Your task to perform on an android device: Check the weather Image 0: 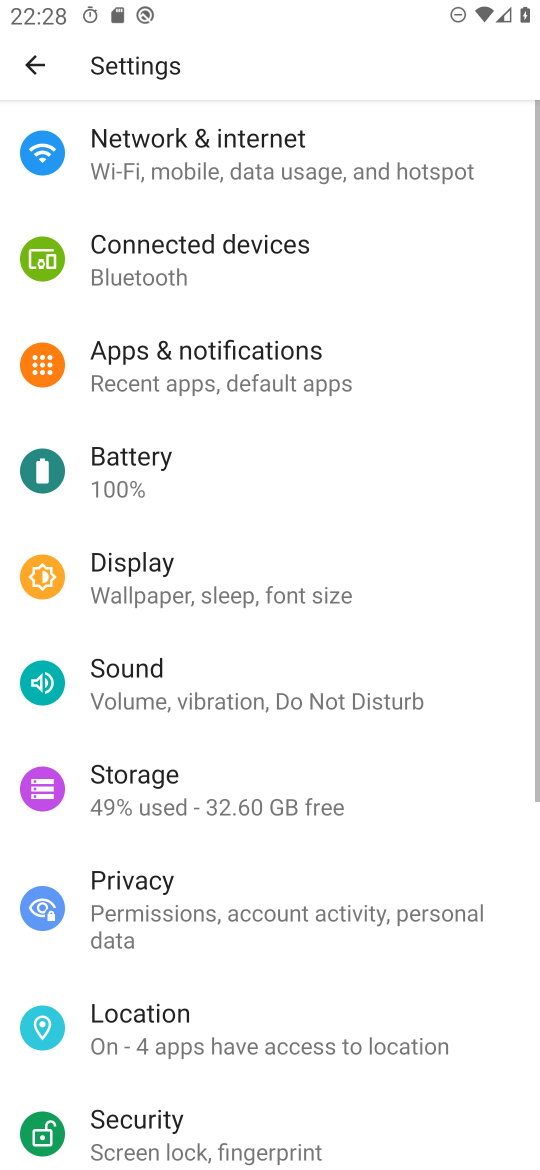
Step 0: press back button
Your task to perform on an android device: Check the weather Image 1: 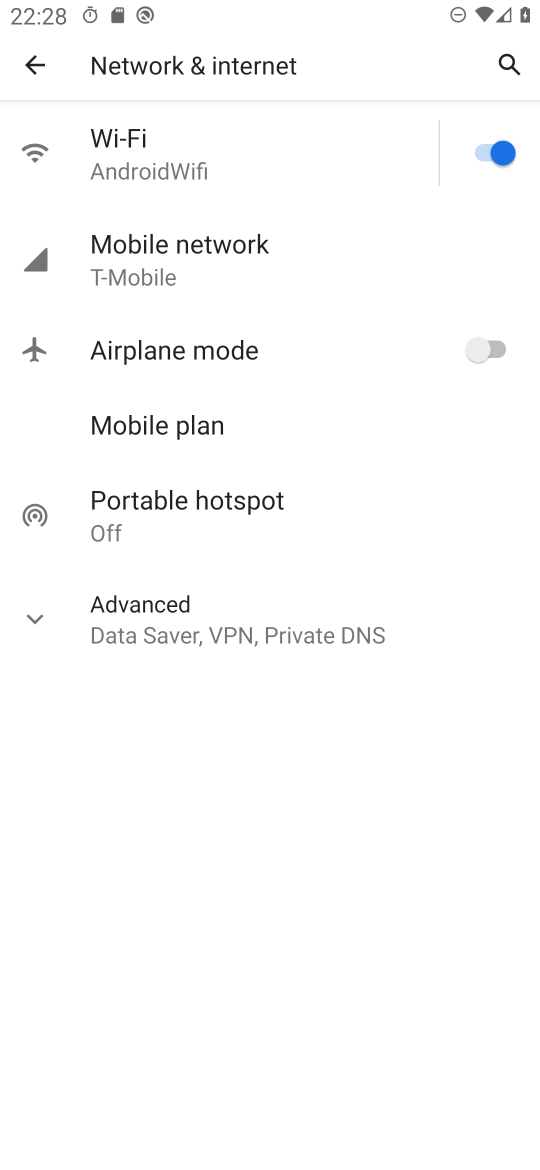
Step 1: press home button
Your task to perform on an android device: Check the weather Image 2: 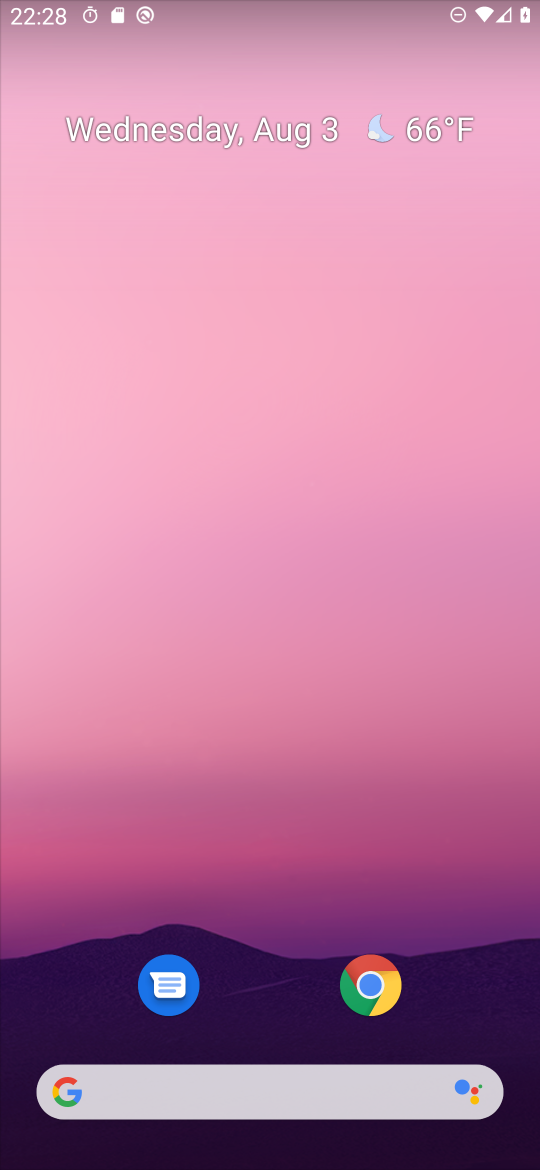
Step 2: drag from (262, 999) to (237, 324)
Your task to perform on an android device: Check the weather Image 3: 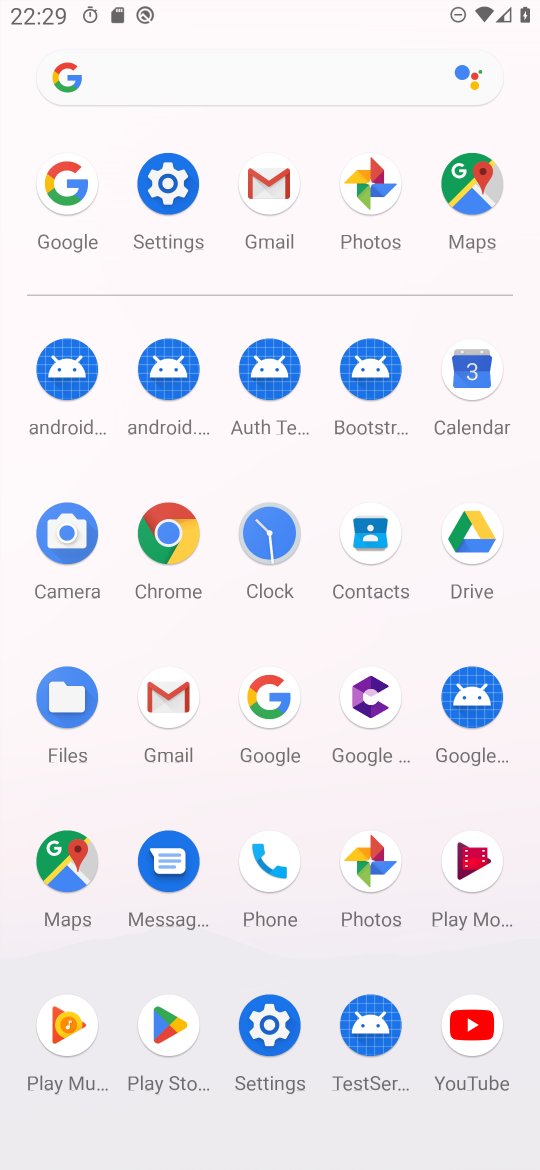
Step 3: click (283, 691)
Your task to perform on an android device: Check the weather Image 4: 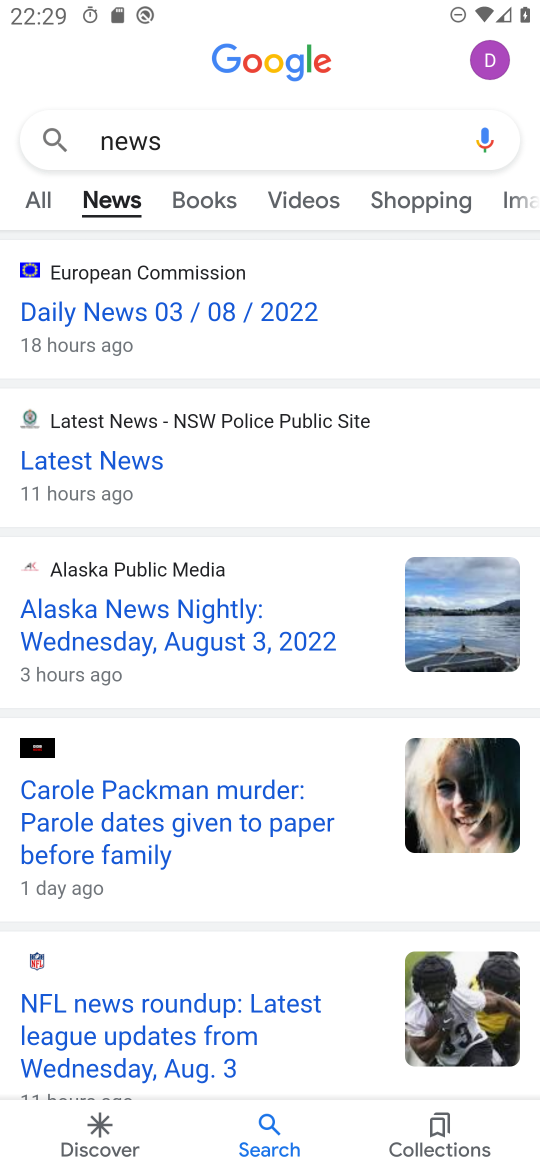
Step 4: click (218, 111)
Your task to perform on an android device: Check the weather Image 5: 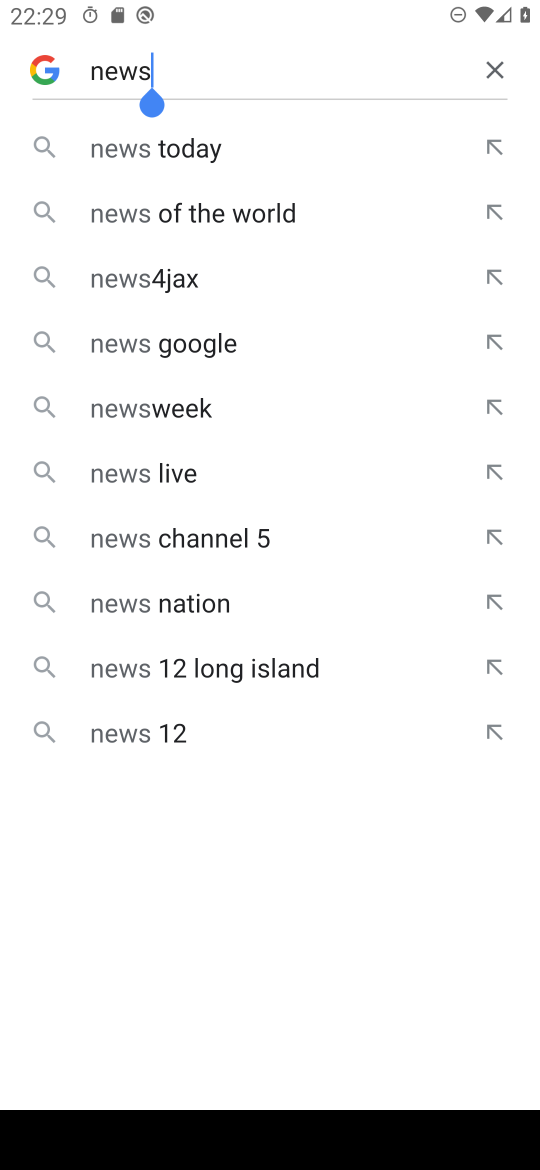
Step 5: click (503, 59)
Your task to perform on an android device: Check the weather Image 6: 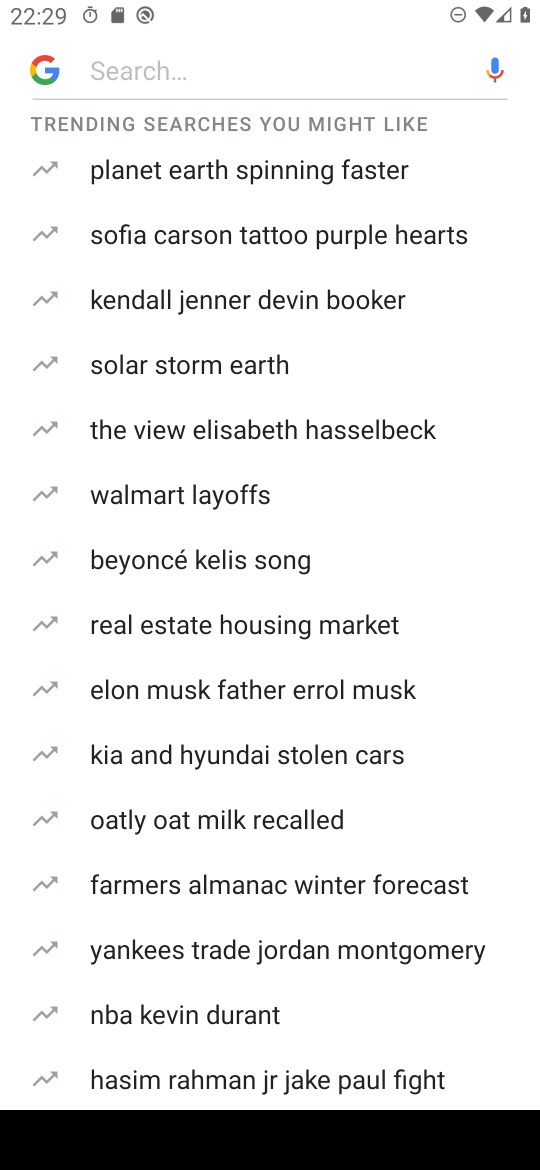
Step 6: type "weather"
Your task to perform on an android device: Check the weather Image 7: 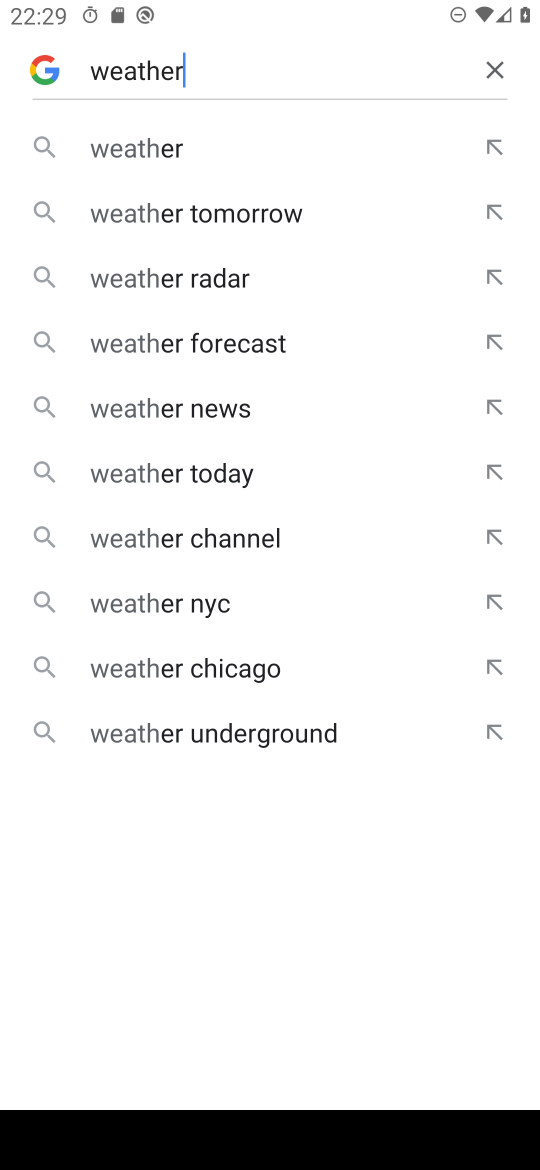
Step 7: type ""
Your task to perform on an android device: Check the weather Image 8: 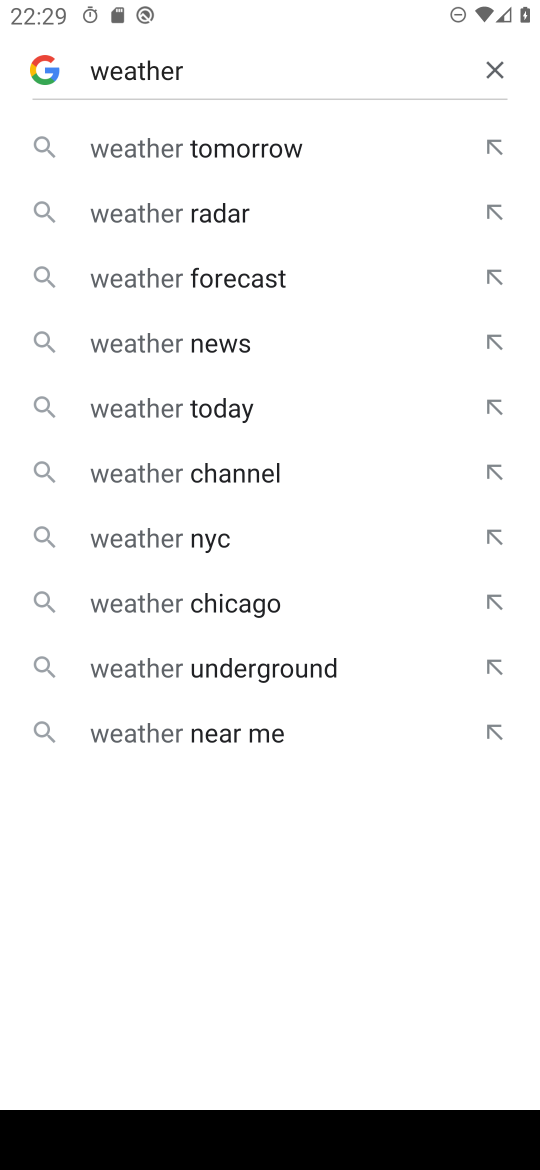
Step 8: click (238, 411)
Your task to perform on an android device: Check the weather Image 9: 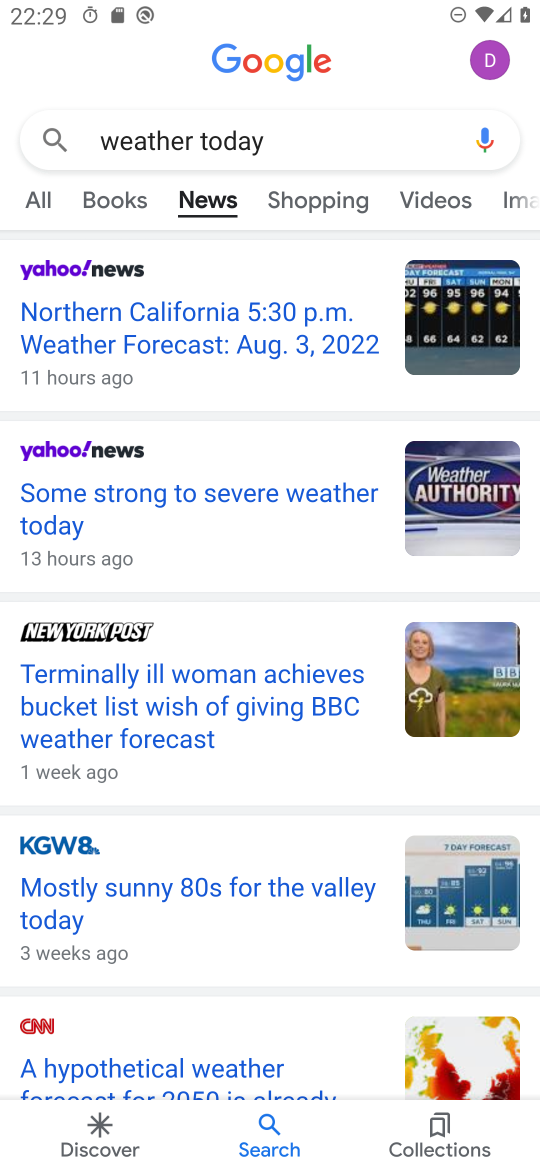
Step 9: click (41, 197)
Your task to perform on an android device: Check the weather Image 10: 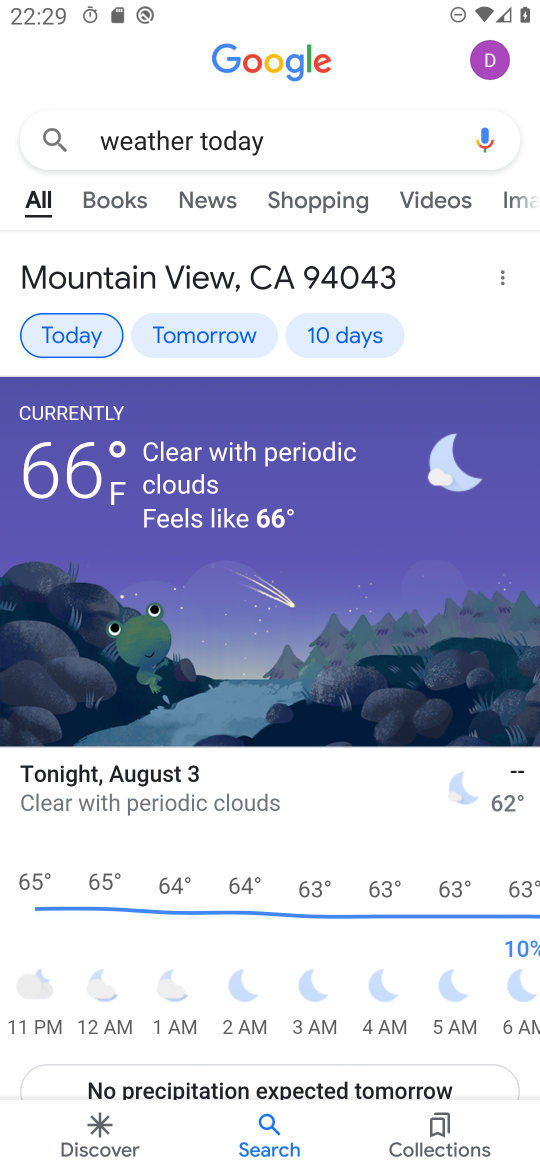
Step 10: task complete